Your task to perform on an android device: toggle pop-ups in chrome Image 0: 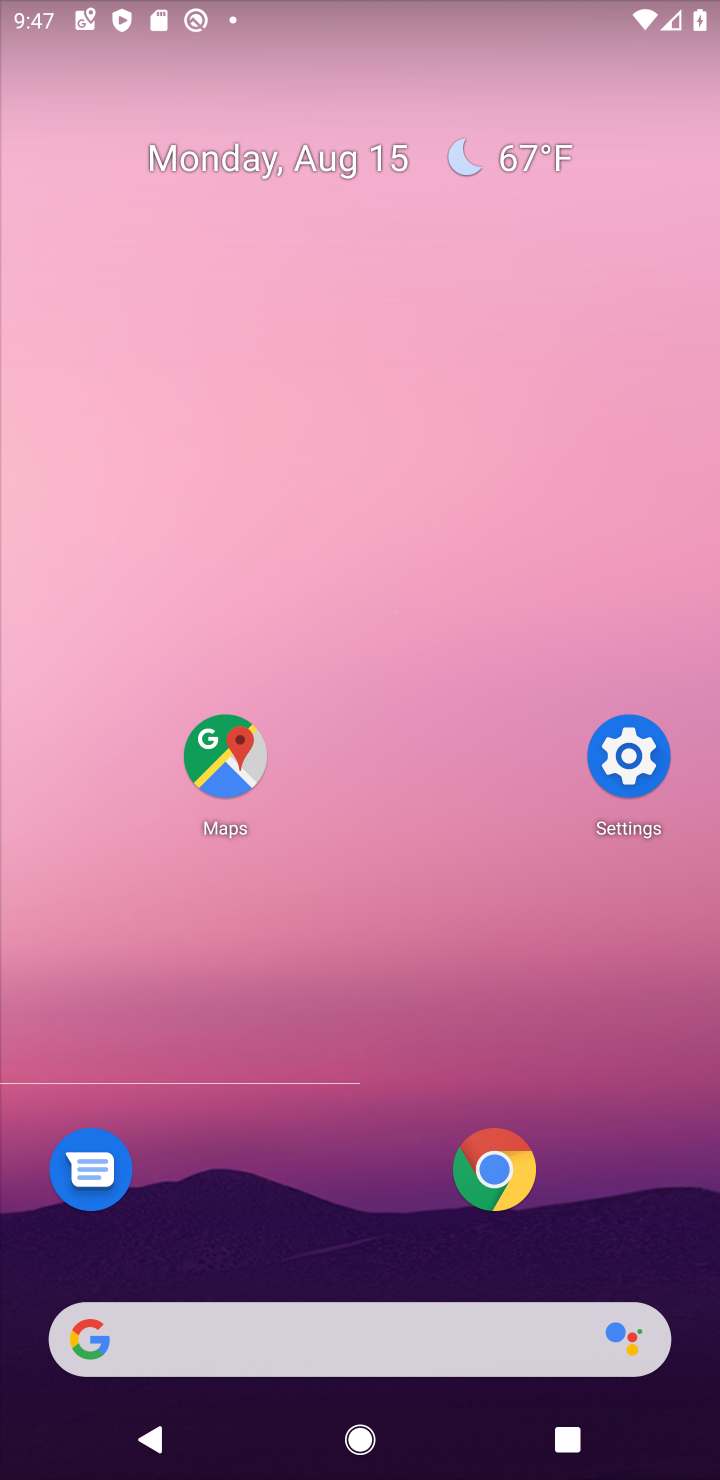
Step 0: click (505, 1159)
Your task to perform on an android device: toggle pop-ups in chrome Image 1: 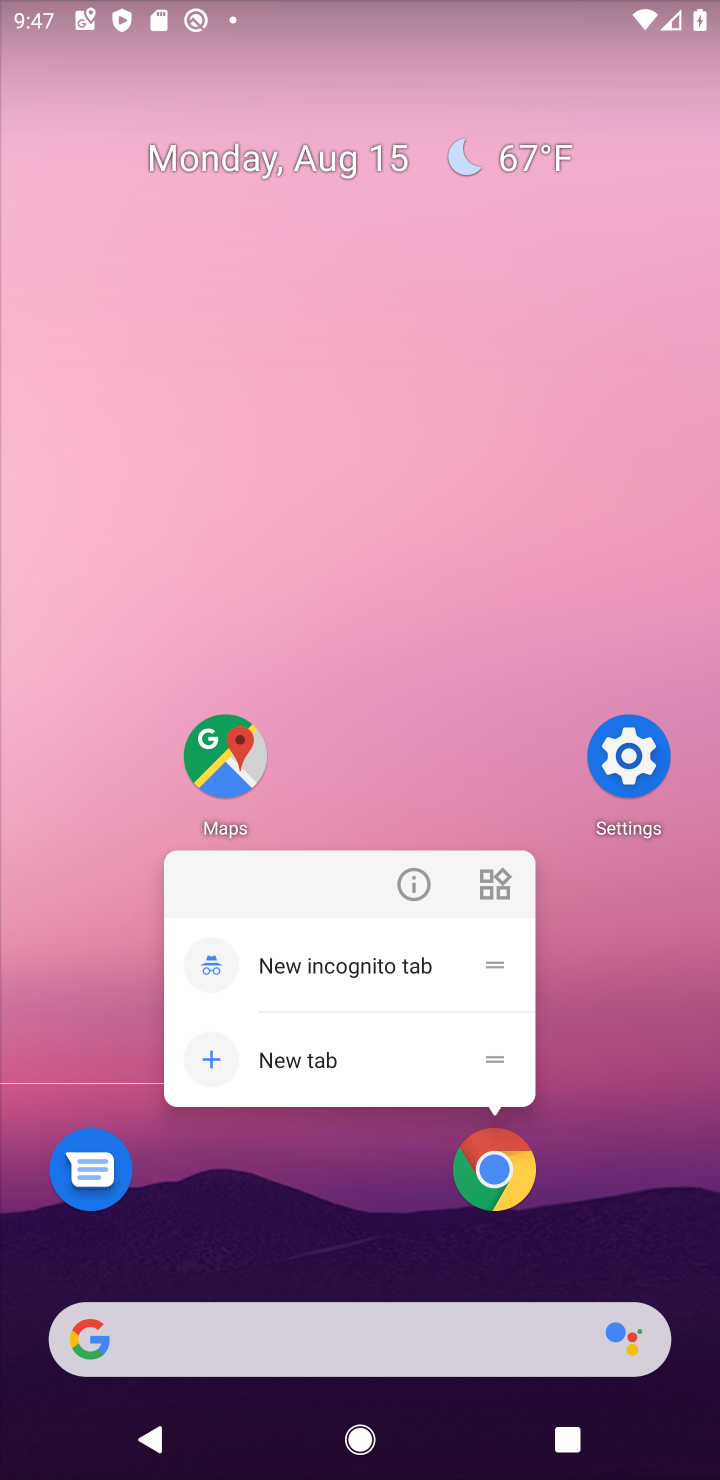
Step 1: click (487, 1181)
Your task to perform on an android device: toggle pop-ups in chrome Image 2: 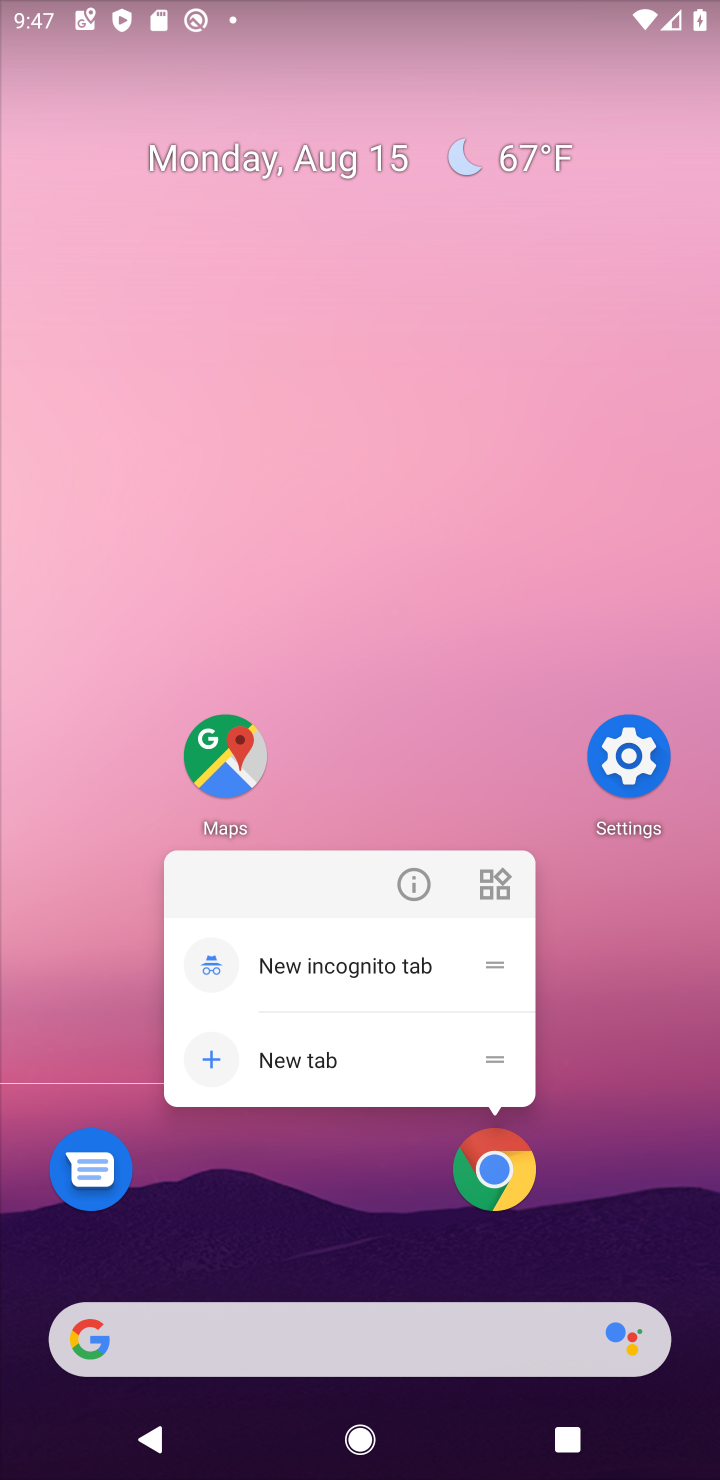
Step 2: click (499, 1167)
Your task to perform on an android device: toggle pop-ups in chrome Image 3: 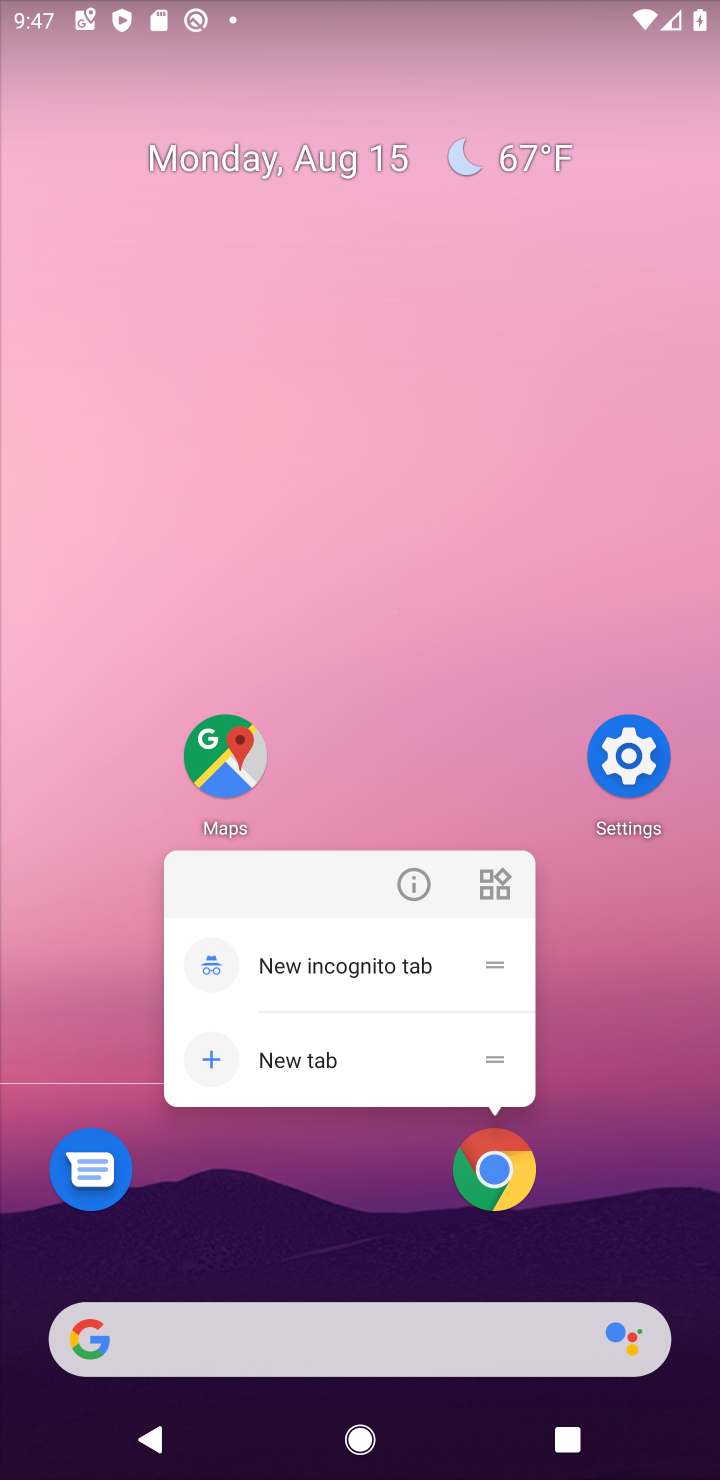
Step 3: click (499, 1167)
Your task to perform on an android device: toggle pop-ups in chrome Image 4: 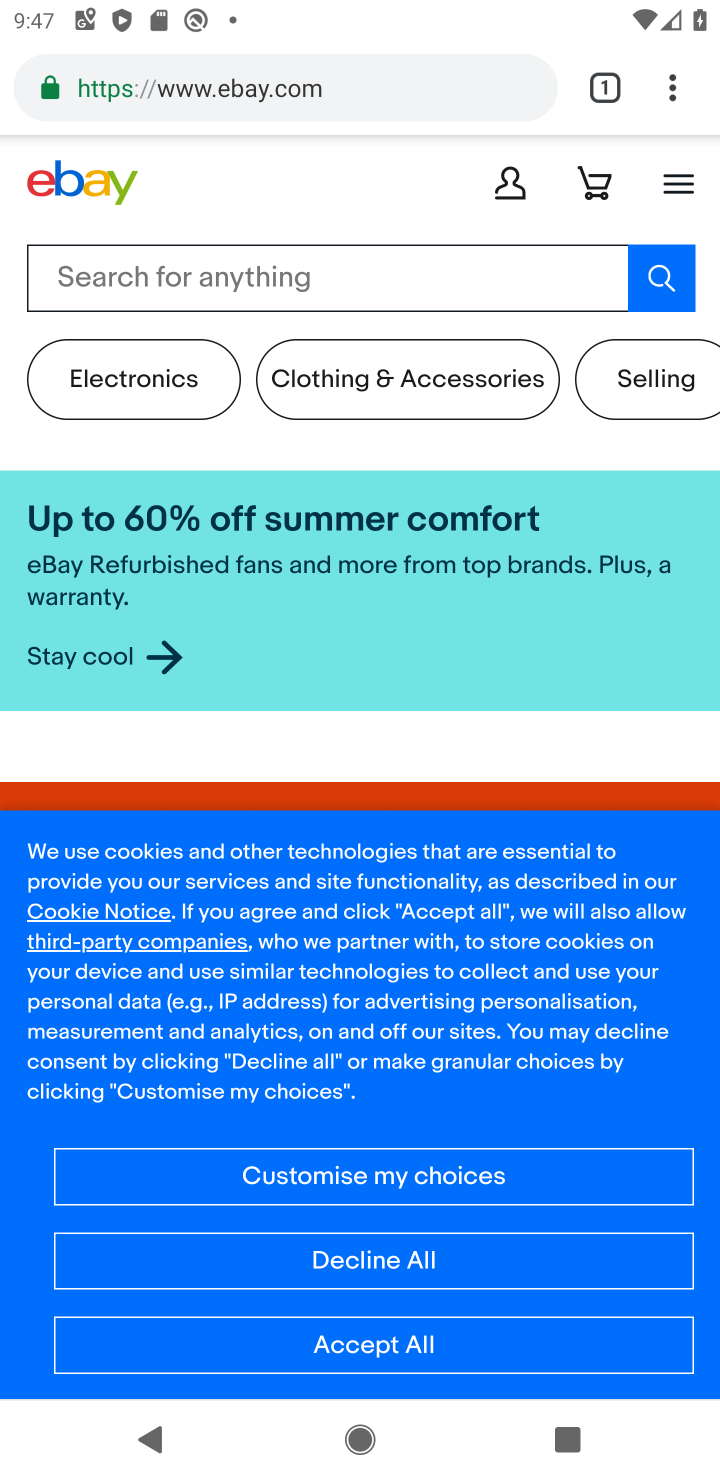
Step 4: drag from (673, 88) to (407, 1063)
Your task to perform on an android device: toggle pop-ups in chrome Image 5: 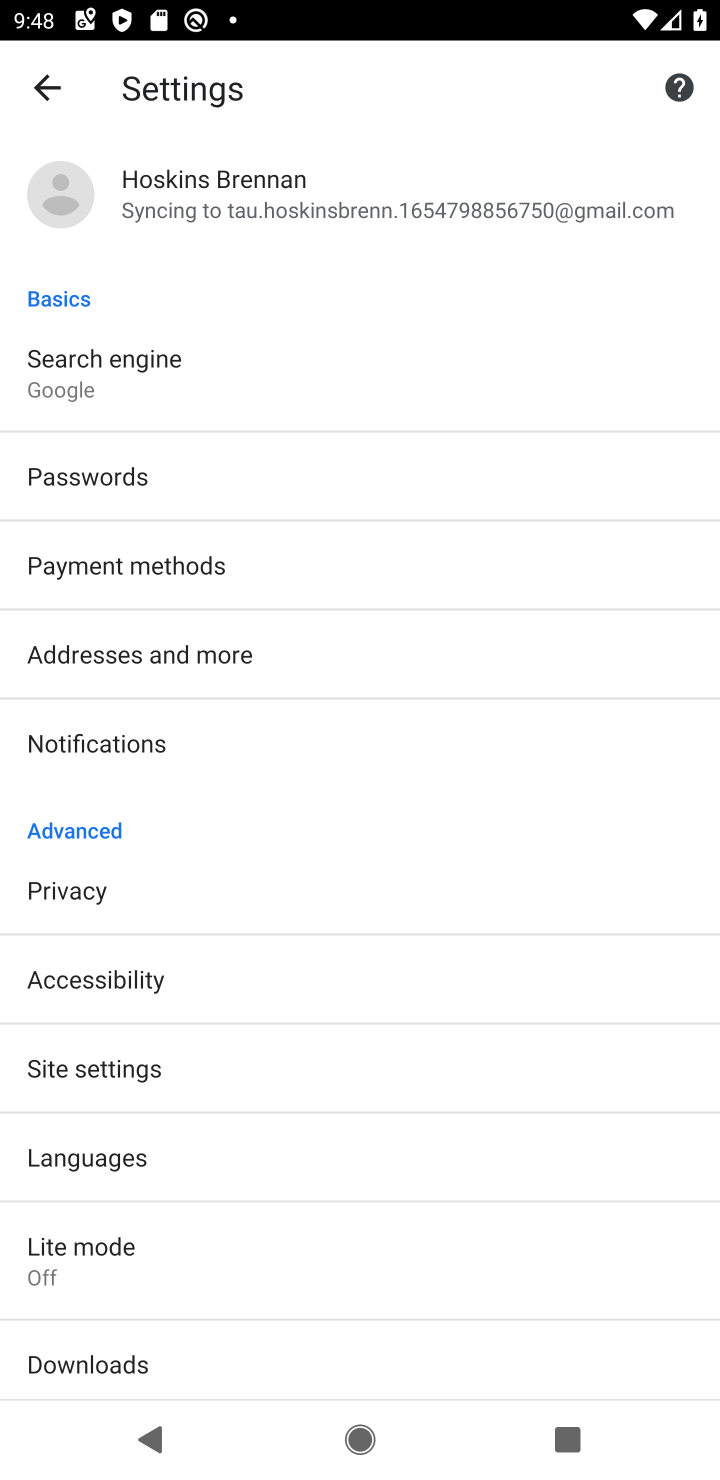
Step 5: click (108, 1082)
Your task to perform on an android device: toggle pop-ups in chrome Image 6: 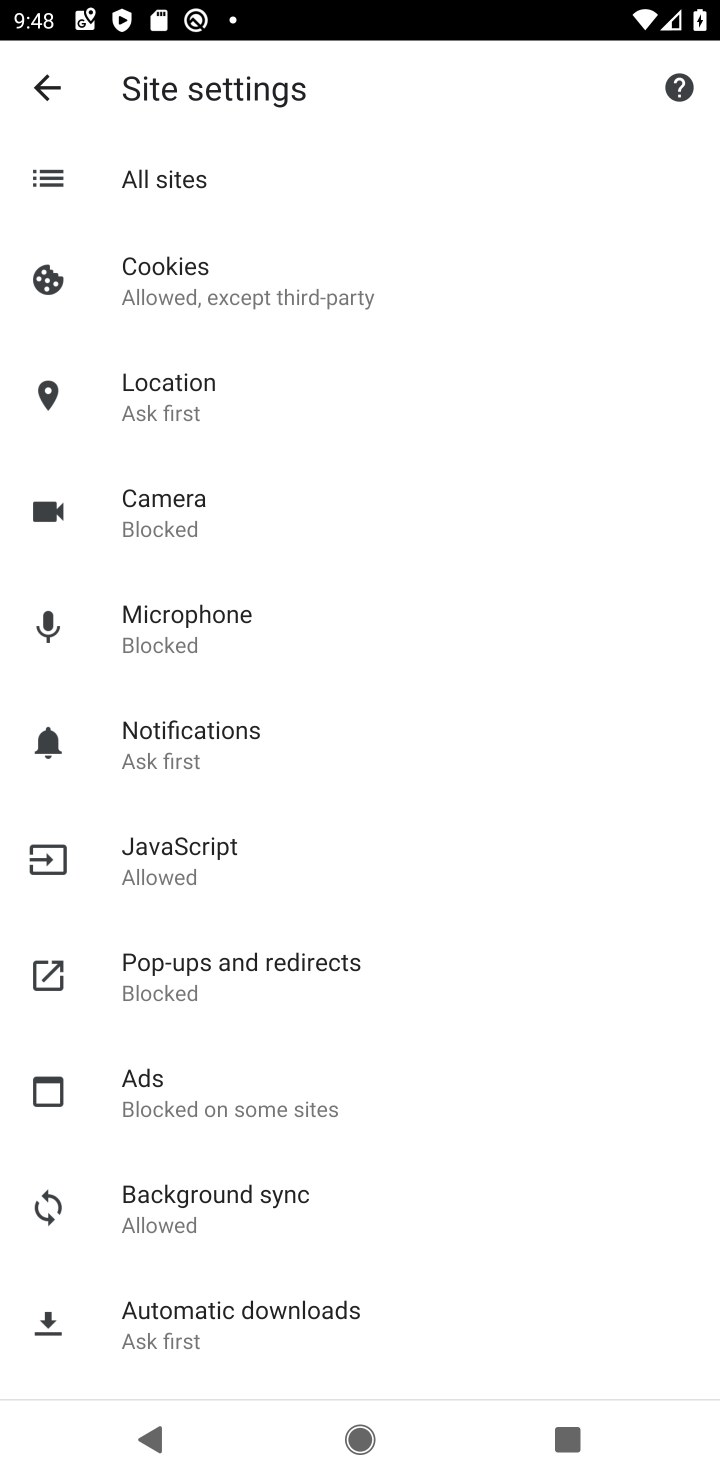
Step 6: click (222, 959)
Your task to perform on an android device: toggle pop-ups in chrome Image 7: 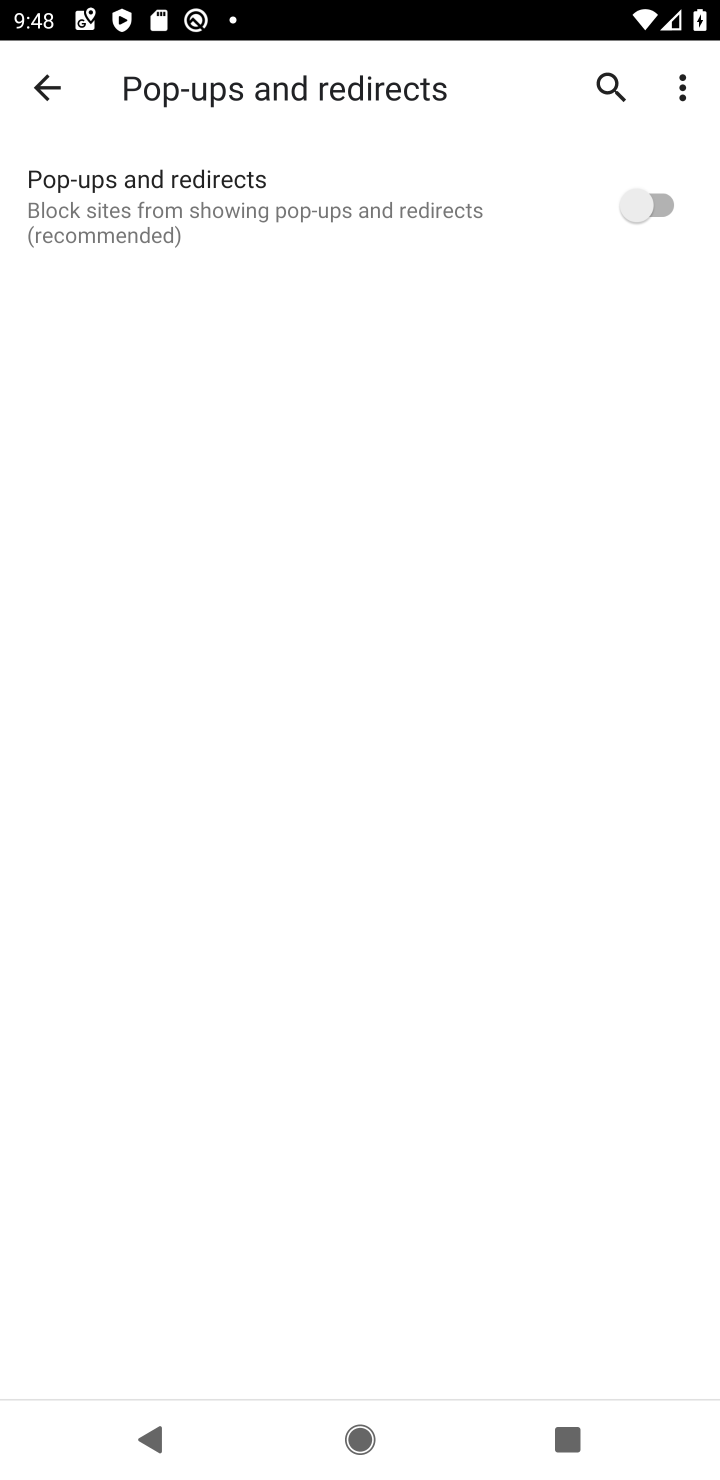
Step 7: click (656, 198)
Your task to perform on an android device: toggle pop-ups in chrome Image 8: 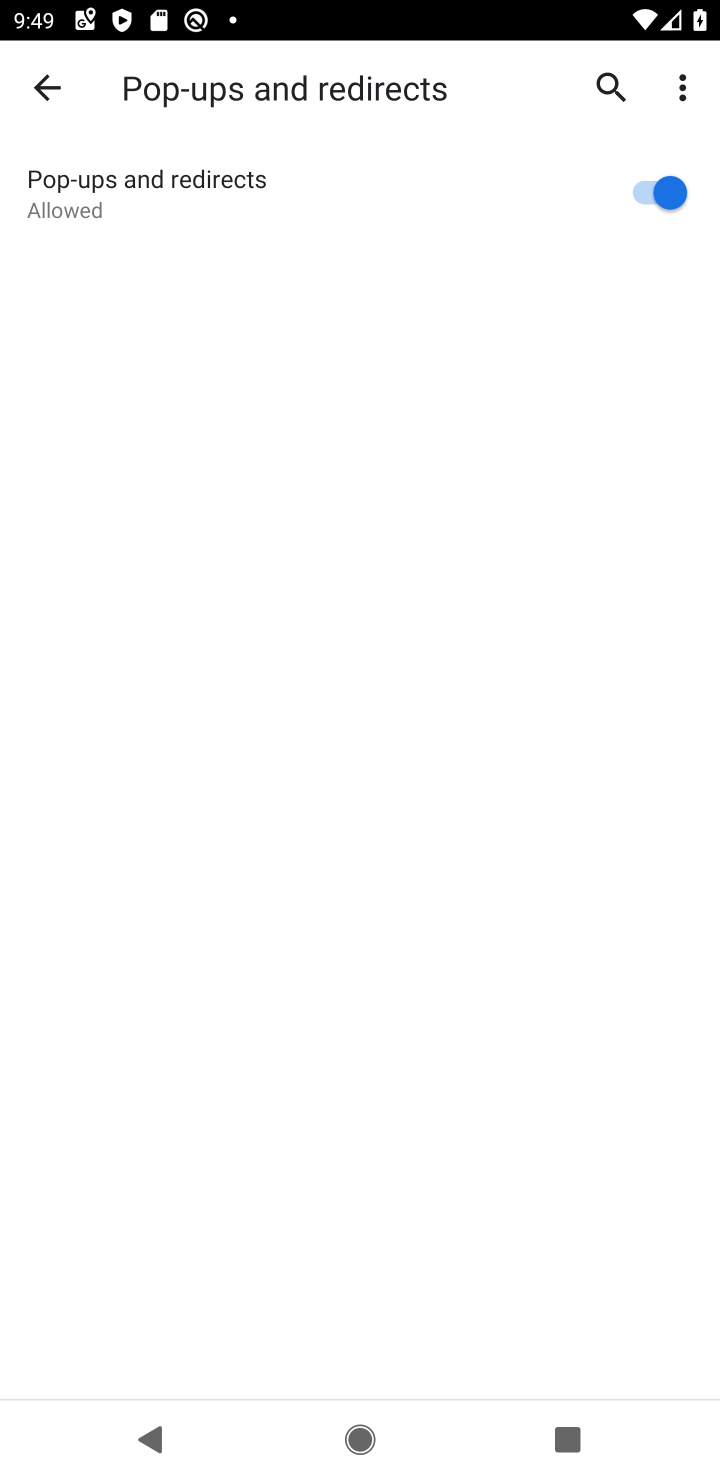
Step 8: task complete